Your task to perform on an android device: Open CNN.com Image 0: 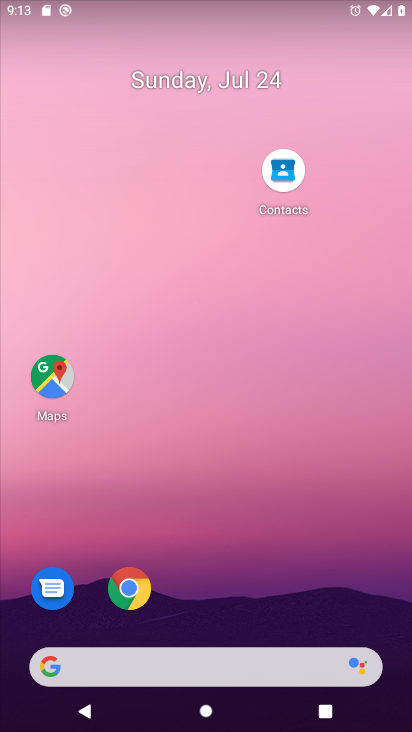
Step 0: press home button
Your task to perform on an android device: Open CNN.com Image 1: 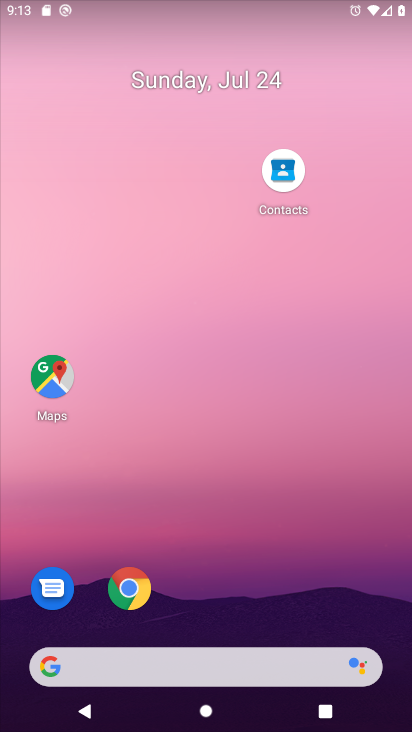
Step 1: click (126, 582)
Your task to perform on an android device: Open CNN.com Image 2: 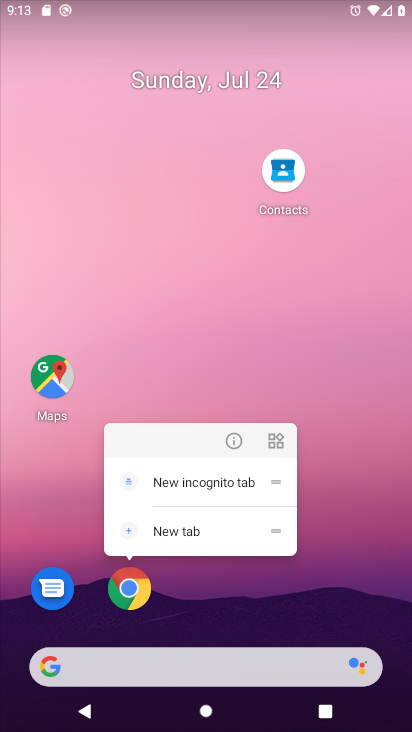
Step 2: click (126, 582)
Your task to perform on an android device: Open CNN.com Image 3: 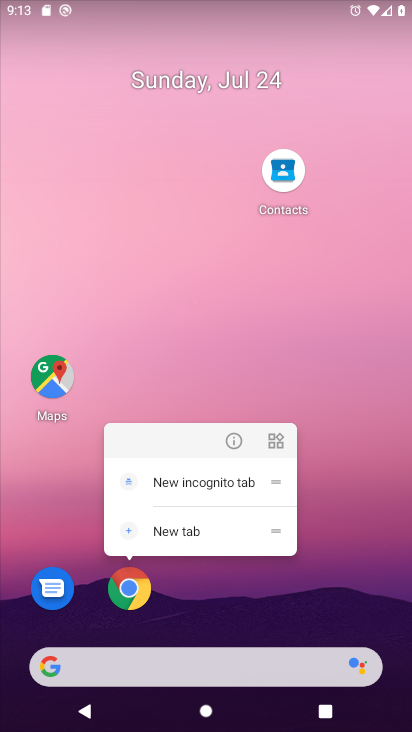
Step 3: click (126, 582)
Your task to perform on an android device: Open CNN.com Image 4: 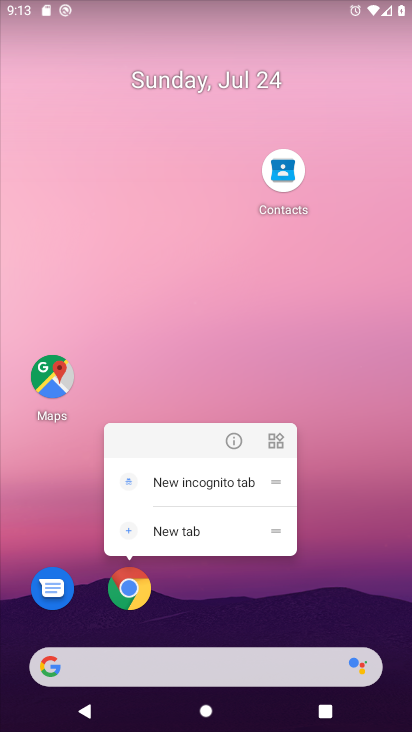
Step 4: click (277, 621)
Your task to perform on an android device: Open CNN.com Image 5: 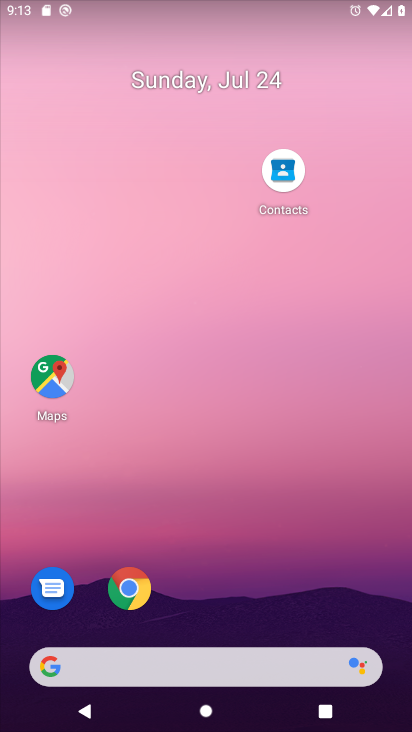
Step 5: drag from (316, 619) to (345, 54)
Your task to perform on an android device: Open CNN.com Image 6: 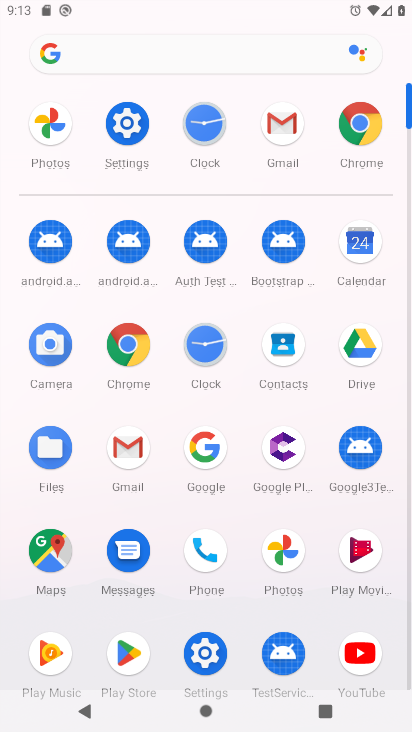
Step 6: click (355, 115)
Your task to perform on an android device: Open CNN.com Image 7: 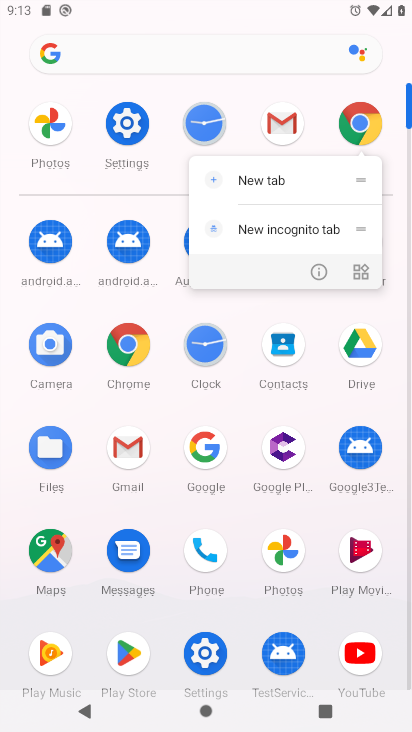
Step 7: click (357, 115)
Your task to perform on an android device: Open CNN.com Image 8: 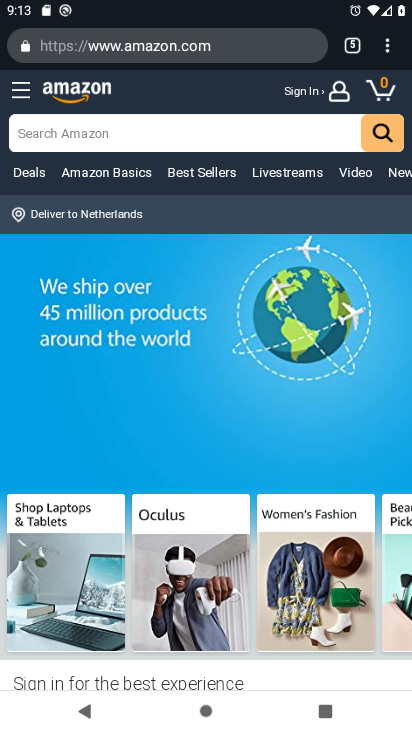
Step 8: click (355, 53)
Your task to perform on an android device: Open CNN.com Image 9: 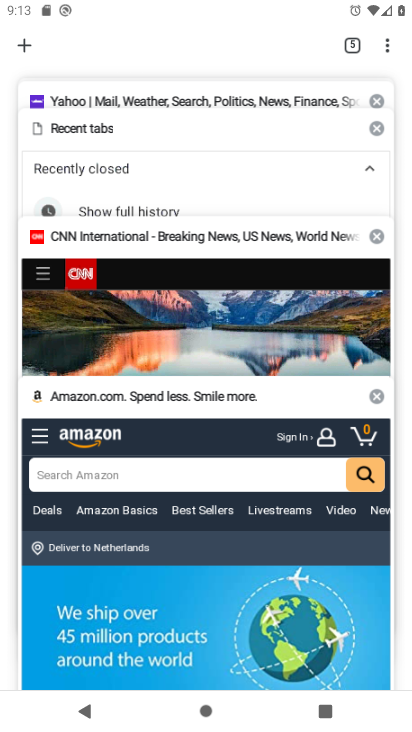
Step 9: click (194, 304)
Your task to perform on an android device: Open CNN.com Image 10: 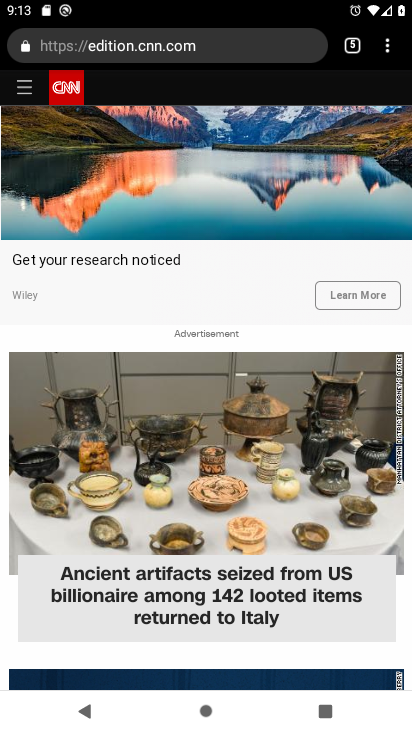
Step 10: task complete